Your task to perform on an android device: Open sound settings Image 0: 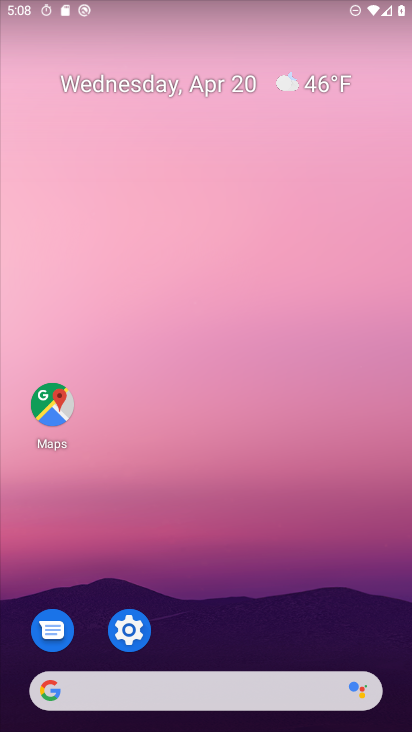
Step 0: drag from (304, 634) to (331, 48)
Your task to perform on an android device: Open sound settings Image 1: 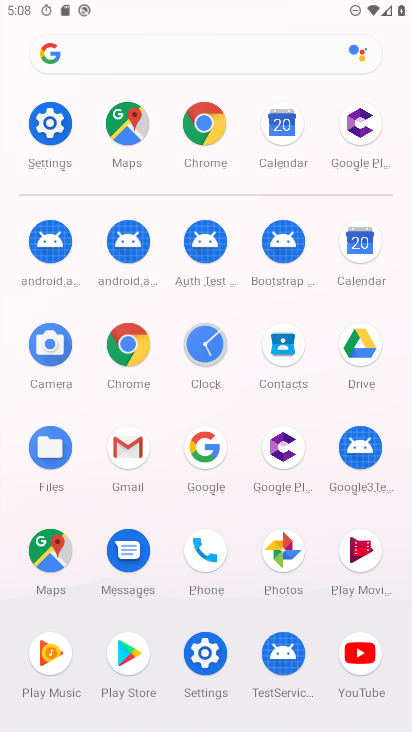
Step 1: click (208, 648)
Your task to perform on an android device: Open sound settings Image 2: 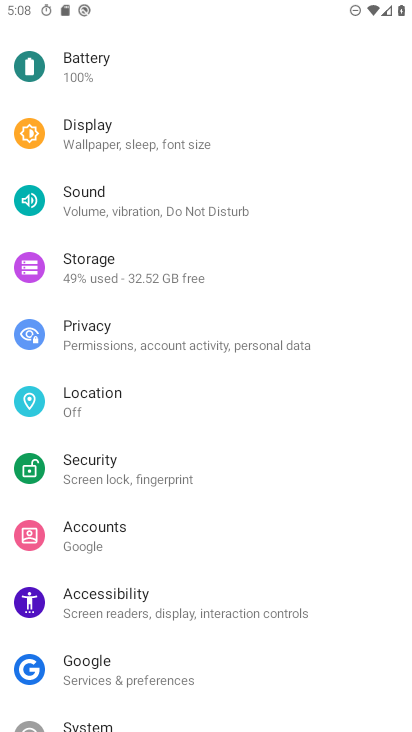
Step 2: click (127, 192)
Your task to perform on an android device: Open sound settings Image 3: 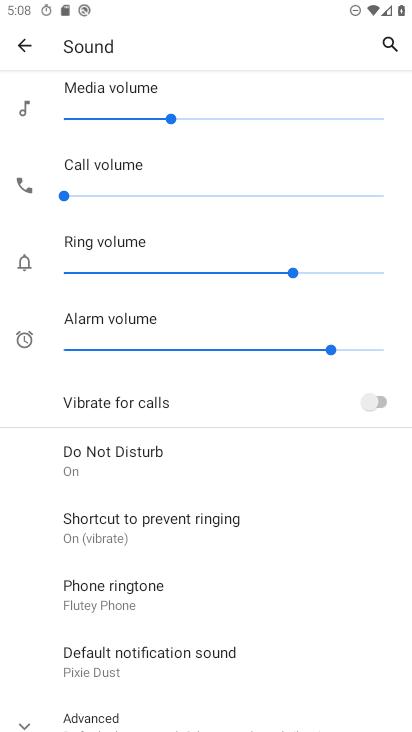
Step 3: task complete